Your task to perform on an android device: Go to calendar. Show me events next week Image 0: 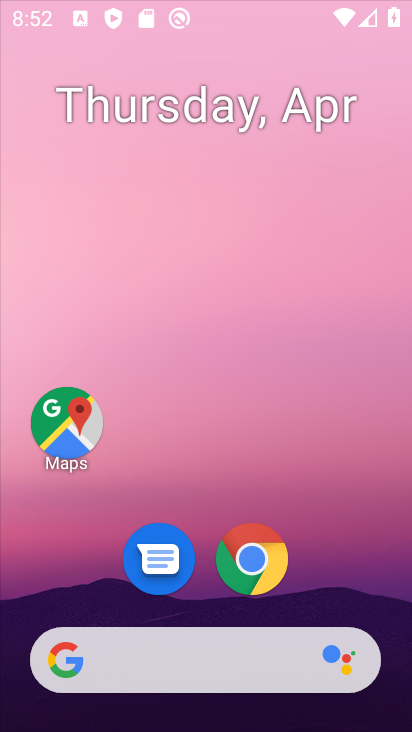
Step 0: click (261, 567)
Your task to perform on an android device: Go to calendar. Show me events next week Image 1: 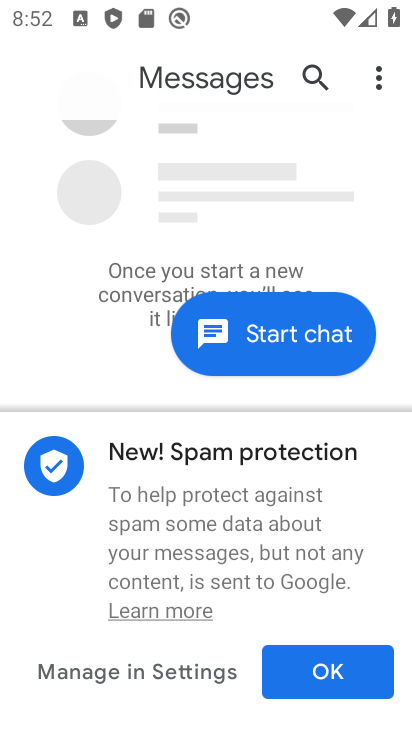
Step 1: press home button
Your task to perform on an android device: Go to calendar. Show me events next week Image 2: 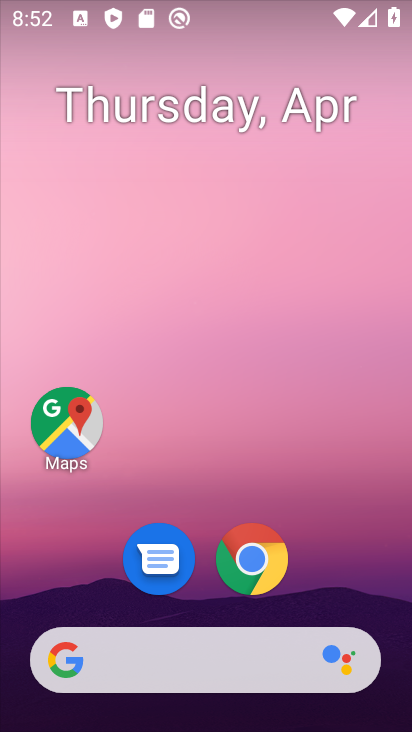
Step 2: drag from (240, 711) to (252, 0)
Your task to perform on an android device: Go to calendar. Show me events next week Image 3: 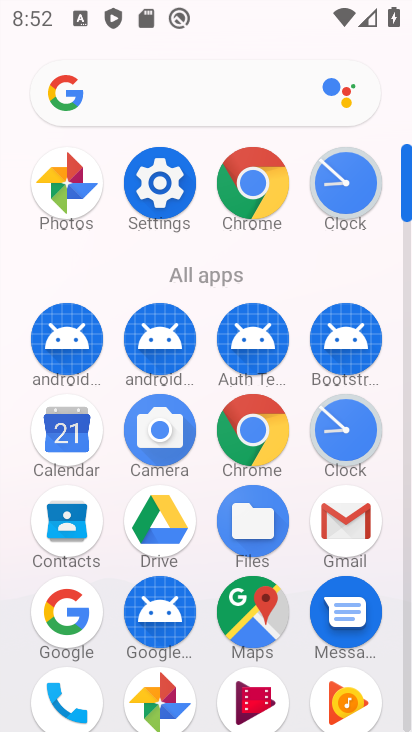
Step 3: click (67, 444)
Your task to perform on an android device: Go to calendar. Show me events next week Image 4: 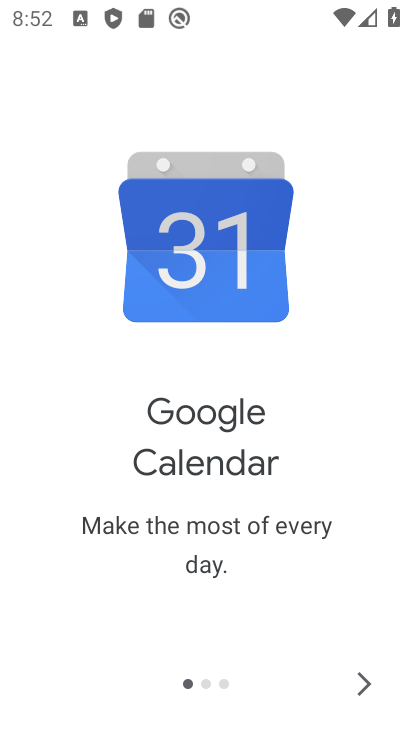
Step 4: click (364, 682)
Your task to perform on an android device: Go to calendar. Show me events next week Image 5: 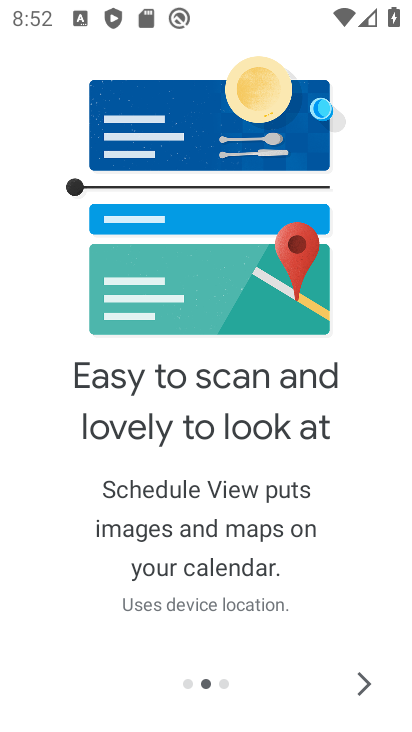
Step 5: click (364, 682)
Your task to perform on an android device: Go to calendar. Show me events next week Image 6: 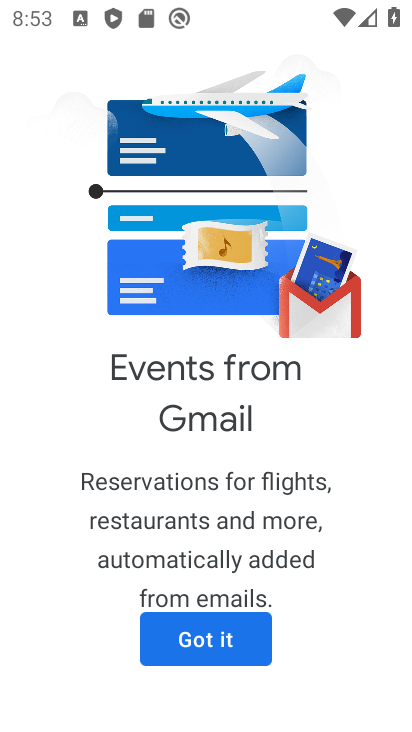
Step 6: click (239, 652)
Your task to perform on an android device: Go to calendar. Show me events next week Image 7: 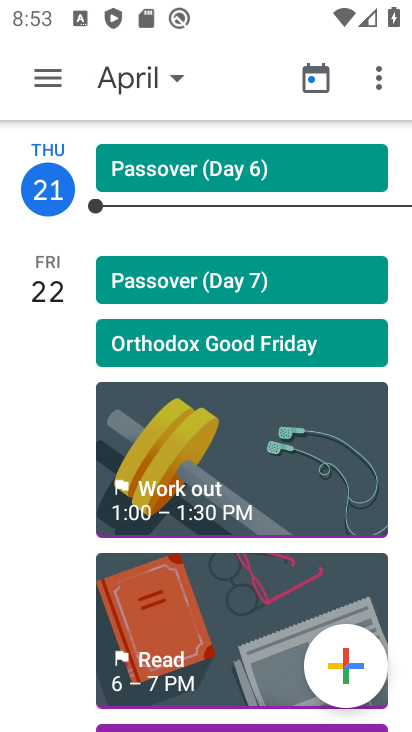
Step 7: click (133, 64)
Your task to perform on an android device: Go to calendar. Show me events next week Image 8: 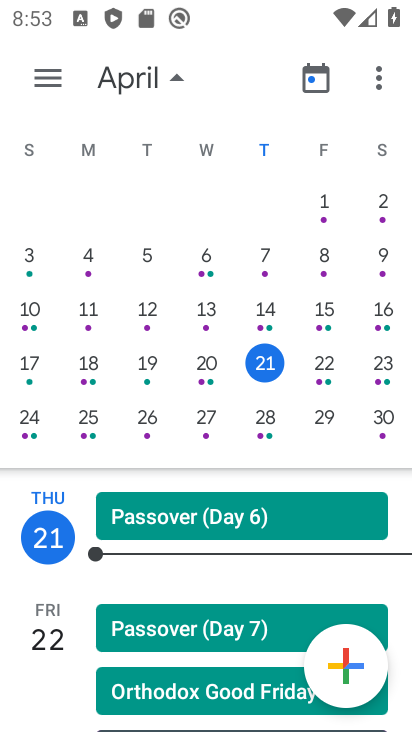
Step 8: click (24, 424)
Your task to perform on an android device: Go to calendar. Show me events next week Image 9: 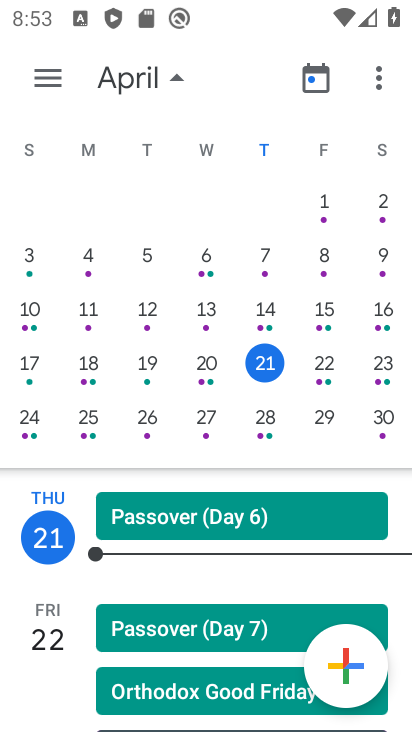
Step 9: click (24, 424)
Your task to perform on an android device: Go to calendar. Show me events next week Image 10: 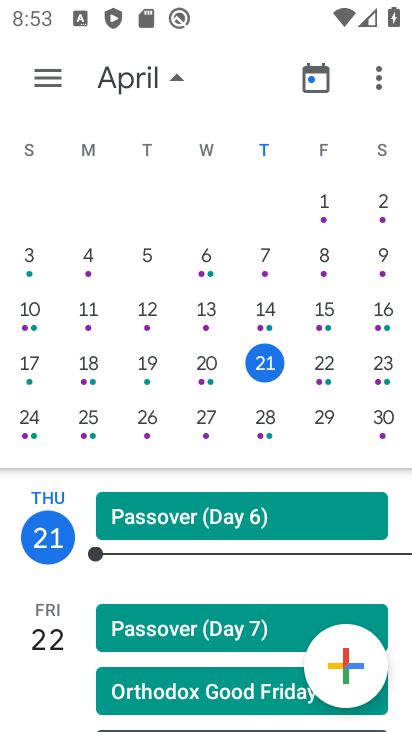
Step 10: click (30, 424)
Your task to perform on an android device: Go to calendar. Show me events next week Image 11: 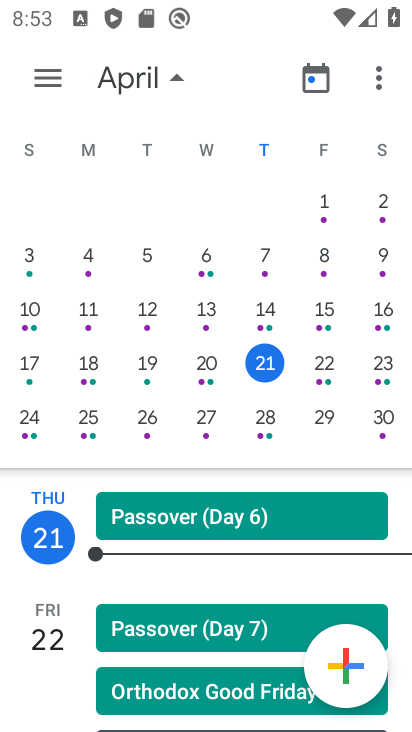
Step 11: click (30, 424)
Your task to perform on an android device: Go to calendar. Show me events next week Image 12: 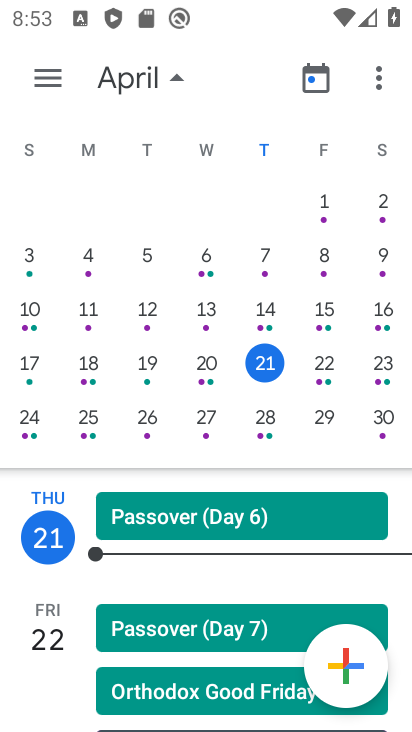
Step 12: click (42, 423)
Your task to perform on an android device: Go to calendar. Show me events next week Image 13: 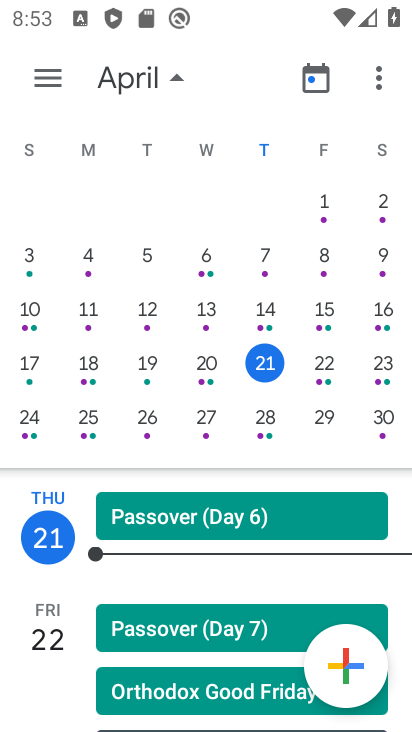
Step 13: click (35, 421)
Your task to perform on an android device: Go to calendar. Show me events next week Image 14: 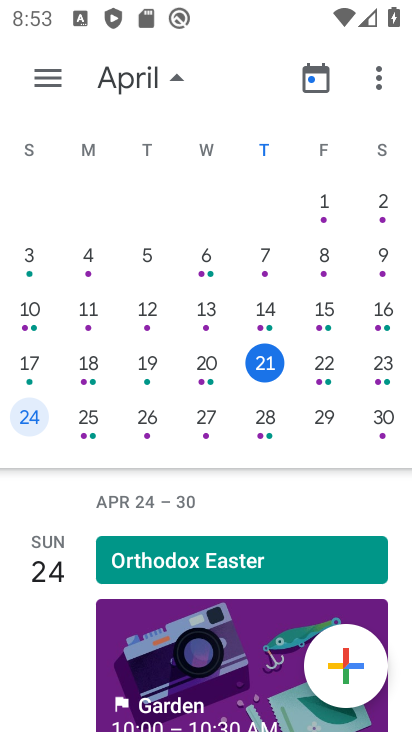
Step 14: task complete